Your task to perform on an android device: turn off wifi Image 0: 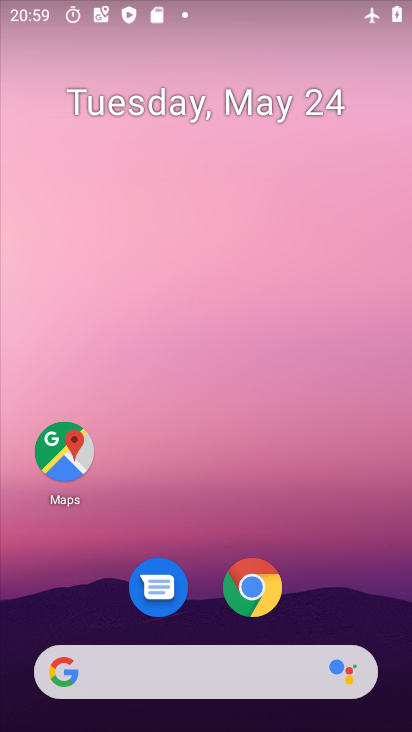
Step 0: drag from (319, 576) to (253, 34)
Your task to perform on an android device: turn off wifi Image 1: 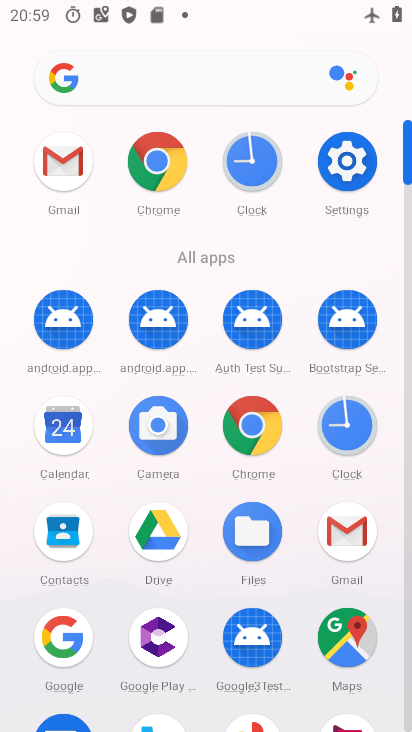
Step 1: drag from (24, 600) to (24, 261)
Your task to perform on an android device: turn off wifi Image 2: 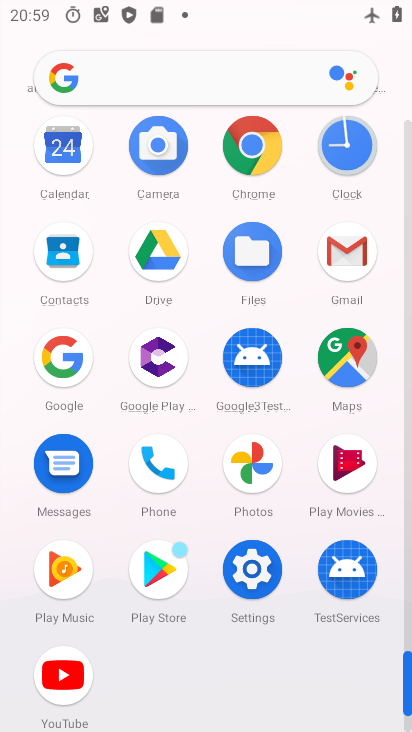
Step 2: click (252, 564)
Your task to perform on an android device: turn off wifi Image 3: 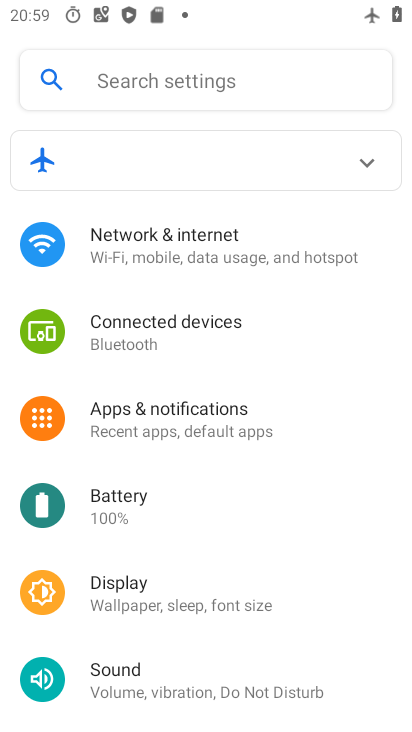
Step 3: click (182, 235)
Your task to perform on an android device: turn off wifi Image 4: 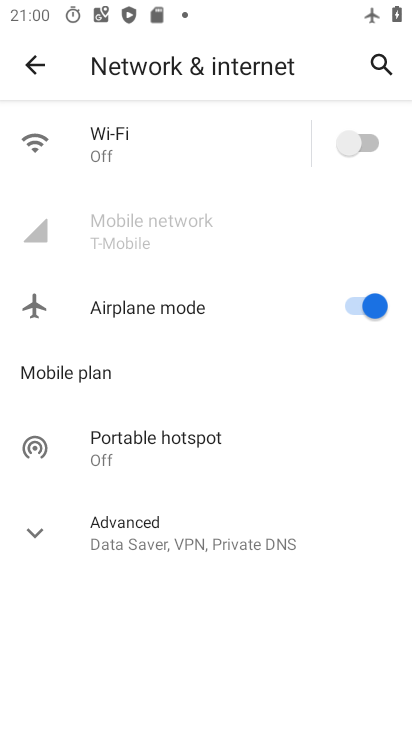
Step 4: task complete